Your task to perform on an android device: Open Chrome and go to the settings page Image 0: 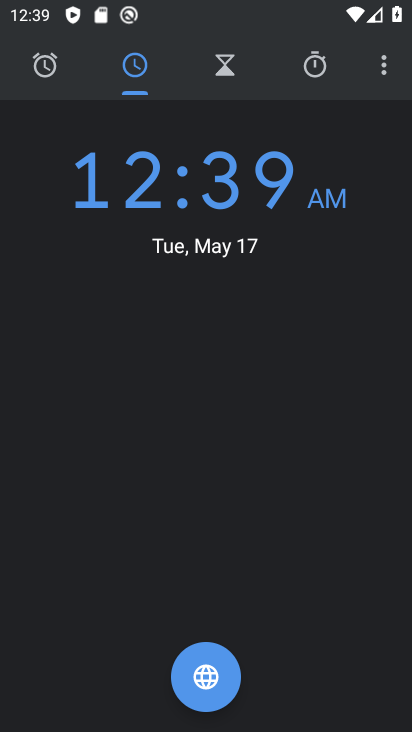
Step 0: press home button
Your task to perform on an android device: Open Chrome and go to the settings page Image 1: 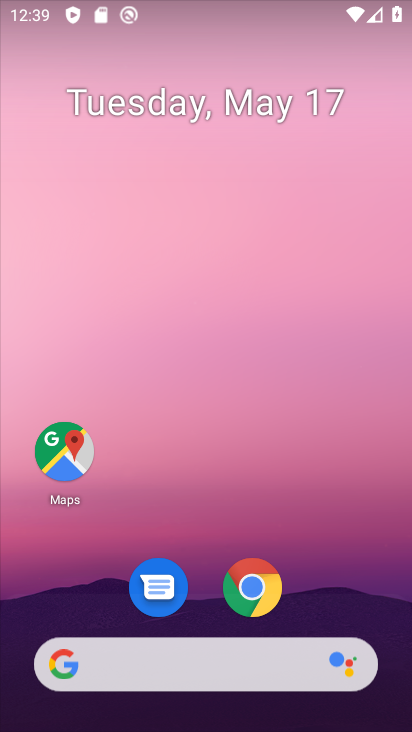
Step 1: click (247, 590)
Your task to perform on an android device: Open Chrome and go to the settings page Image 2: 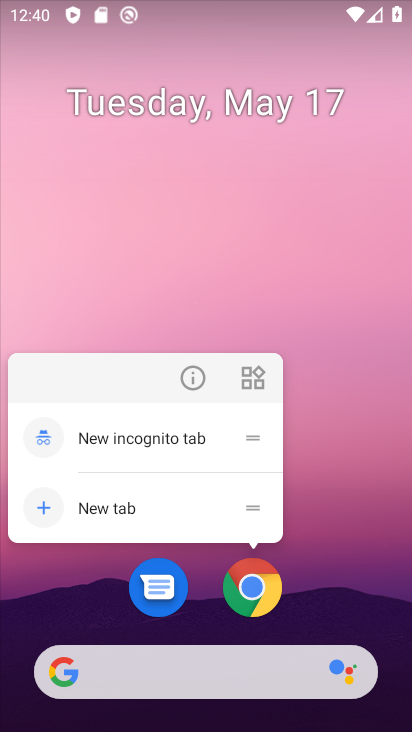
Step 2: click (246, 584)
Your task to perform on an android device: Open Chrome and go to the settings page Image 3: 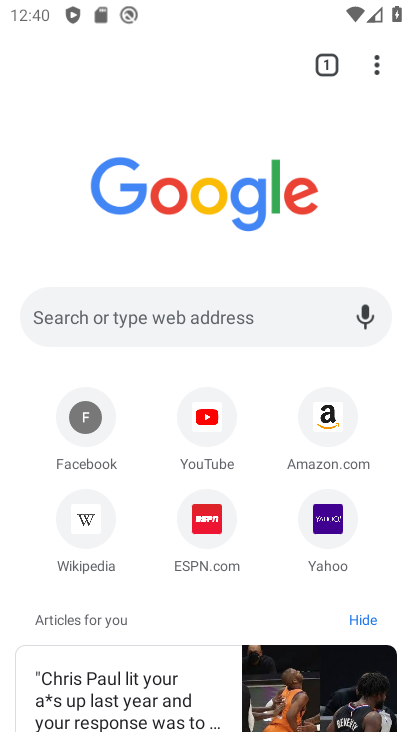
Step 3: task complete